Your task to perform on an android device: open app "Viber Messenger" (install if not already installed) and enter user name: "blameless@icloud.com" and password: "Yoknapatawpha" Image 0: 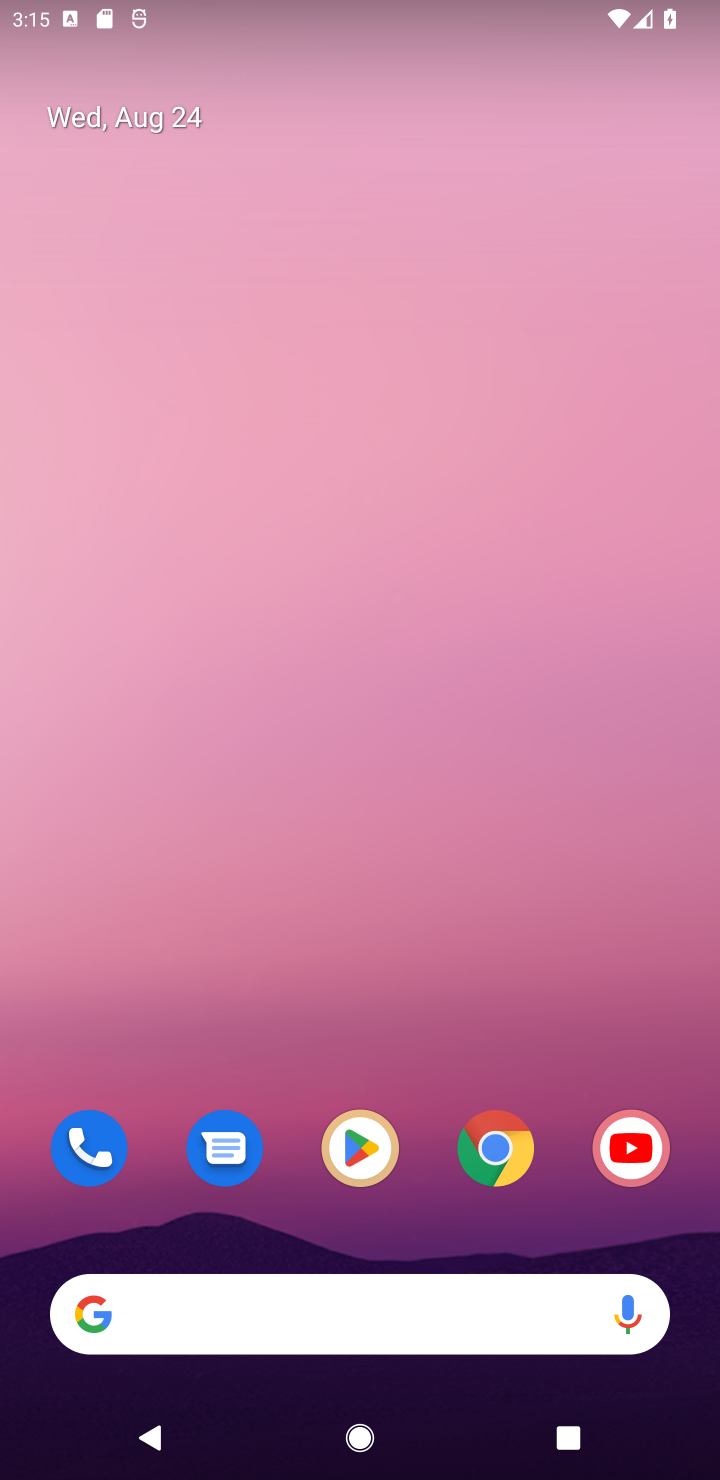
Step 0: drag from (301, 1239) to (383, 465)
Your task to perform on an android device: open app "Viber Messenger" (install if not already installed) and enter user name: "blameless@icloud.com" and password: "Yoknapatawpha" Image 1: 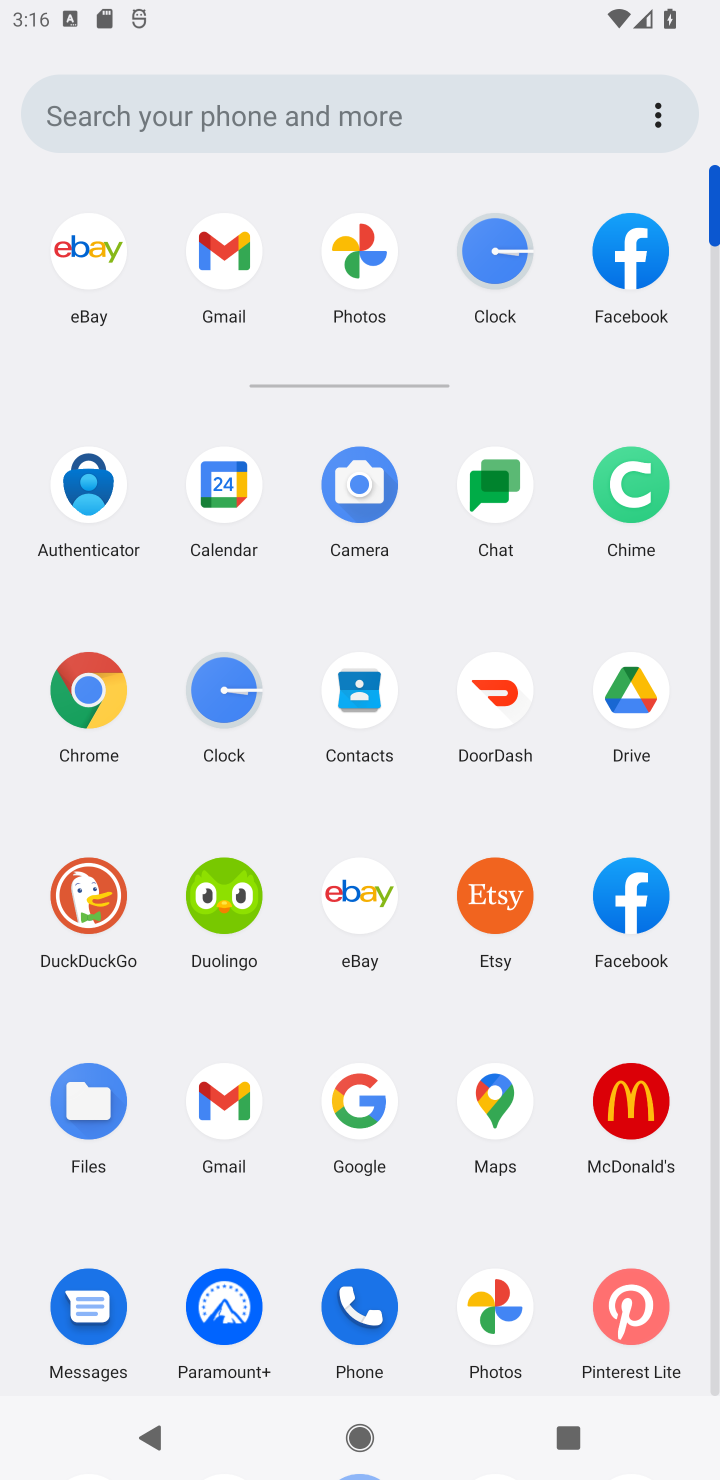
Step 1: drag from (317, 1187) to (429, 360)
Your task to perform on an android device: open app "Viber Messenger" (install if not already installed) and enter user name: "blameless@icloud.com" and password: "Yoknapatawpha" Image 2: 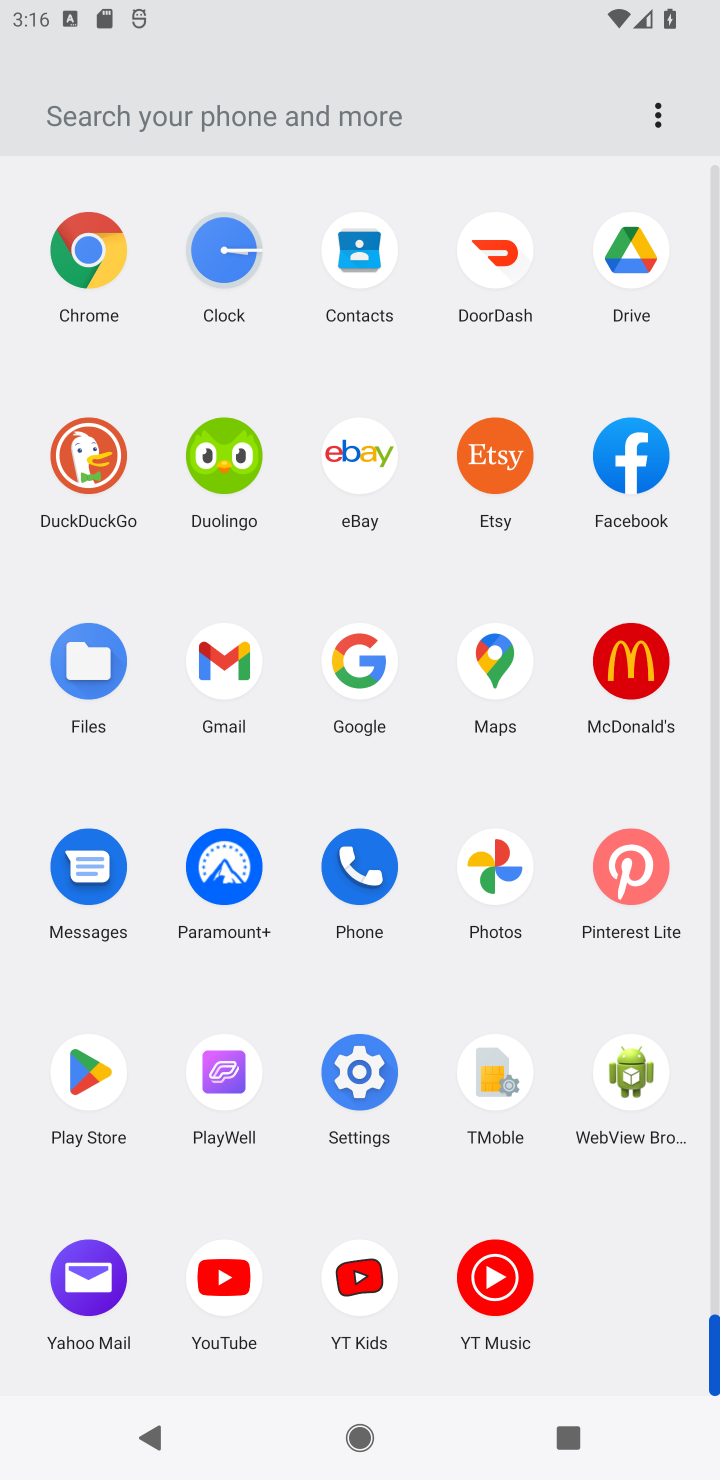
Step 2: click (88, 1065)
Your task to perform on an android device: open app "Viber Messenger" (install if not already installed) and enter user name: "blameless@icloud.com" and password: "Yoknapatawpha" Image 3: 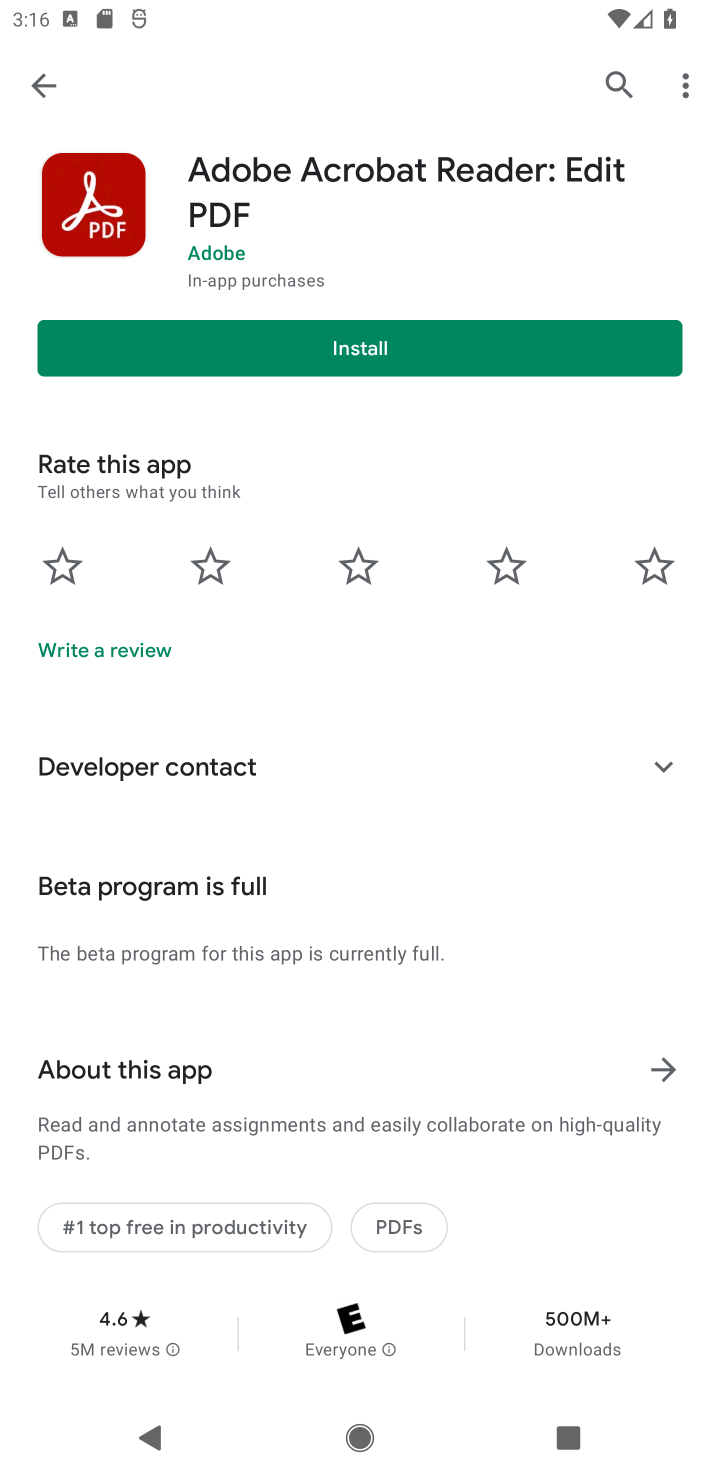
Step 3: click (43, 77)
Your task to perform on an android device: open app "Viber Messenger" (install if not already installed) and enter user name: "blameless@icloud.com" and password: "Yoknapatawpha" Image 4: 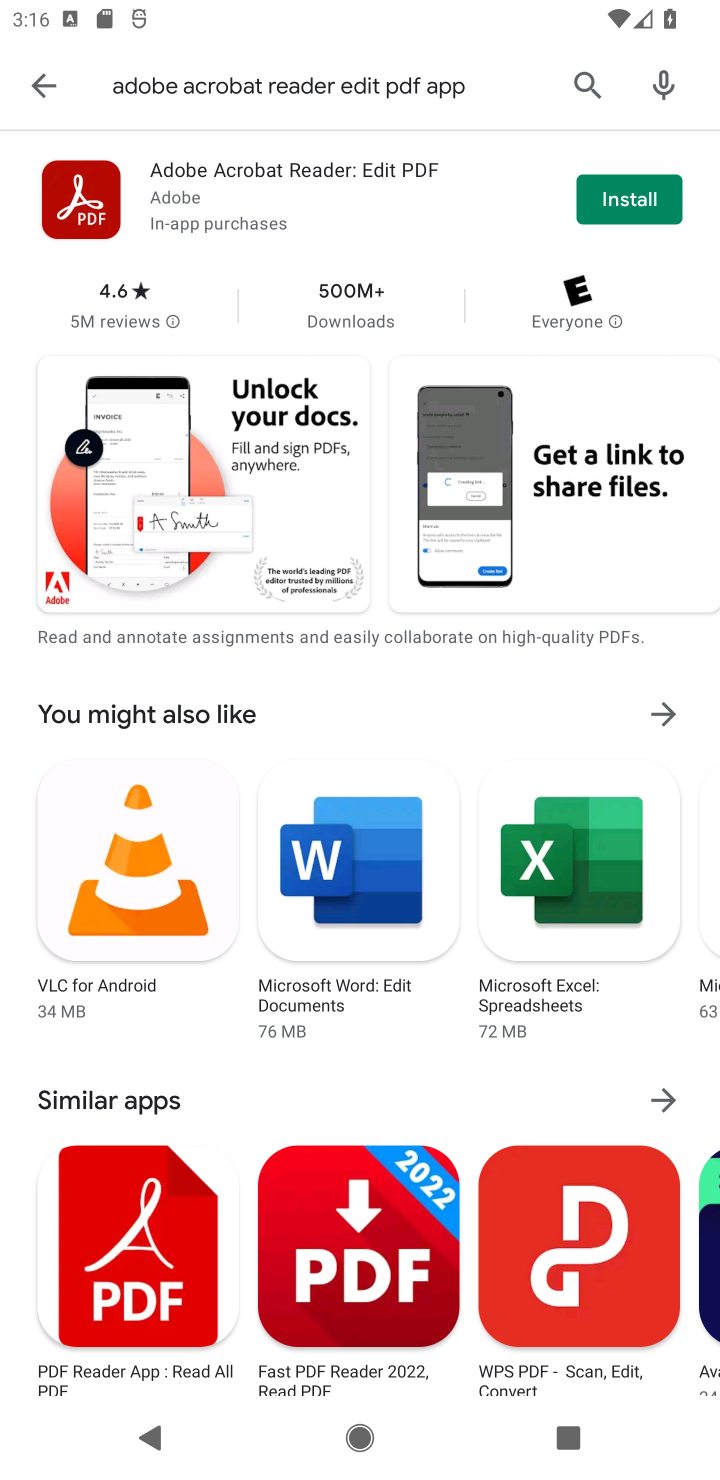
Step 4: click (43, 77)
Your task to perform on an android device: open app "Viber Messenger" (install if not already installed) and enter user name: "blameless@icloud.com" and password: "Yoknapatawpha" Image 5: 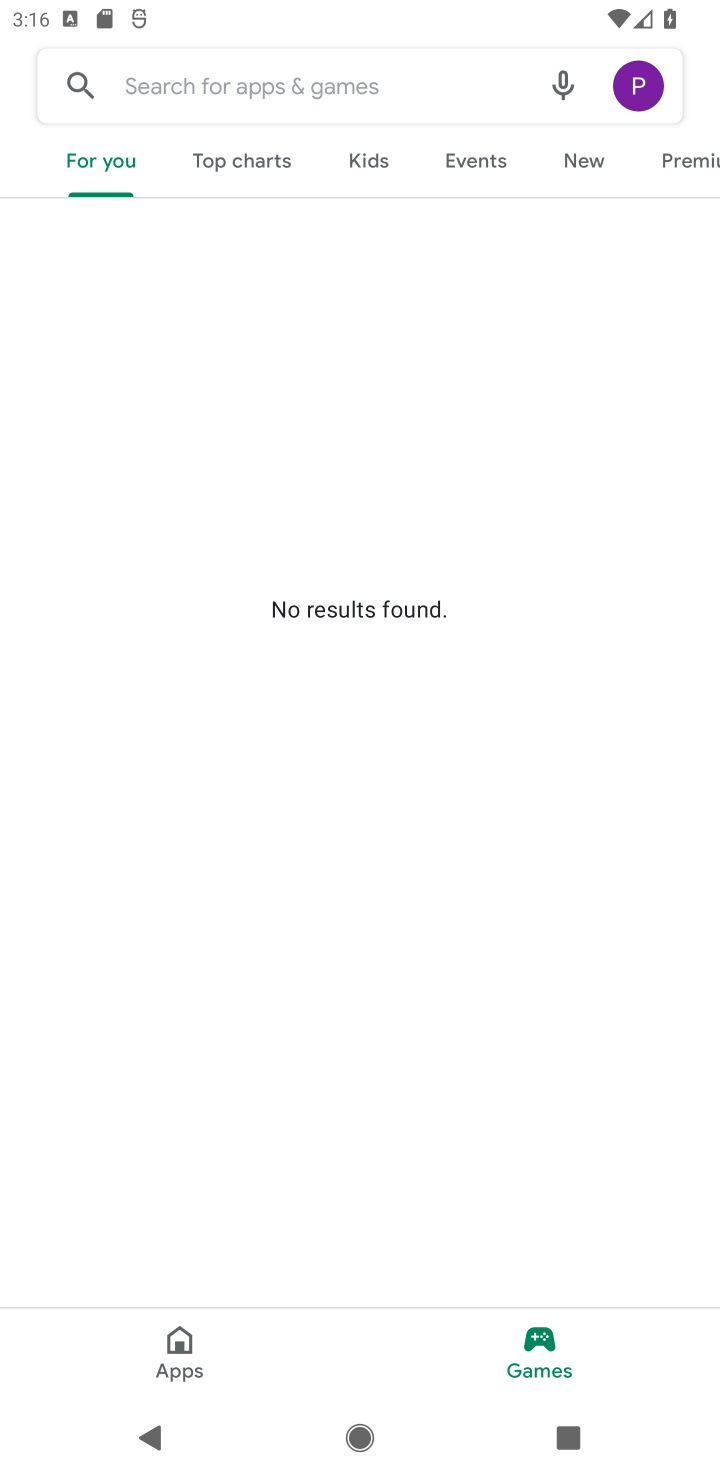
Step 5: click (205, 69)
Your task to perform on an android device: open app "Viber Messenger" (install if not already installed) and enter user name: "blameless@icloud.com" and password: "Yoknapatawpha" Image 6: 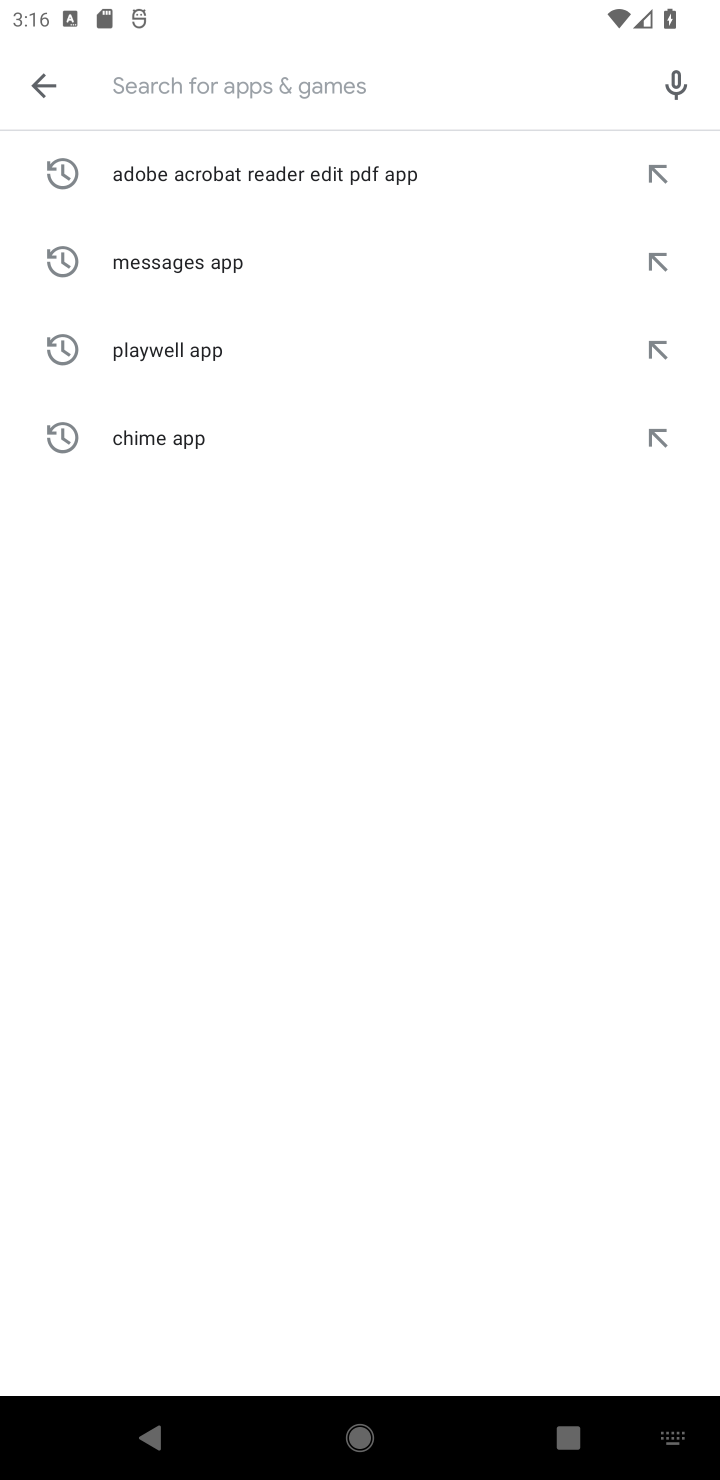
Step 6: type "Viber Messenge "
Your task to perform on an android device: open app "Viber Messenger" (install if not already installed) and enter user name: "blameless@icloud.com" and password: "Yoknapatawpha" Image 7: 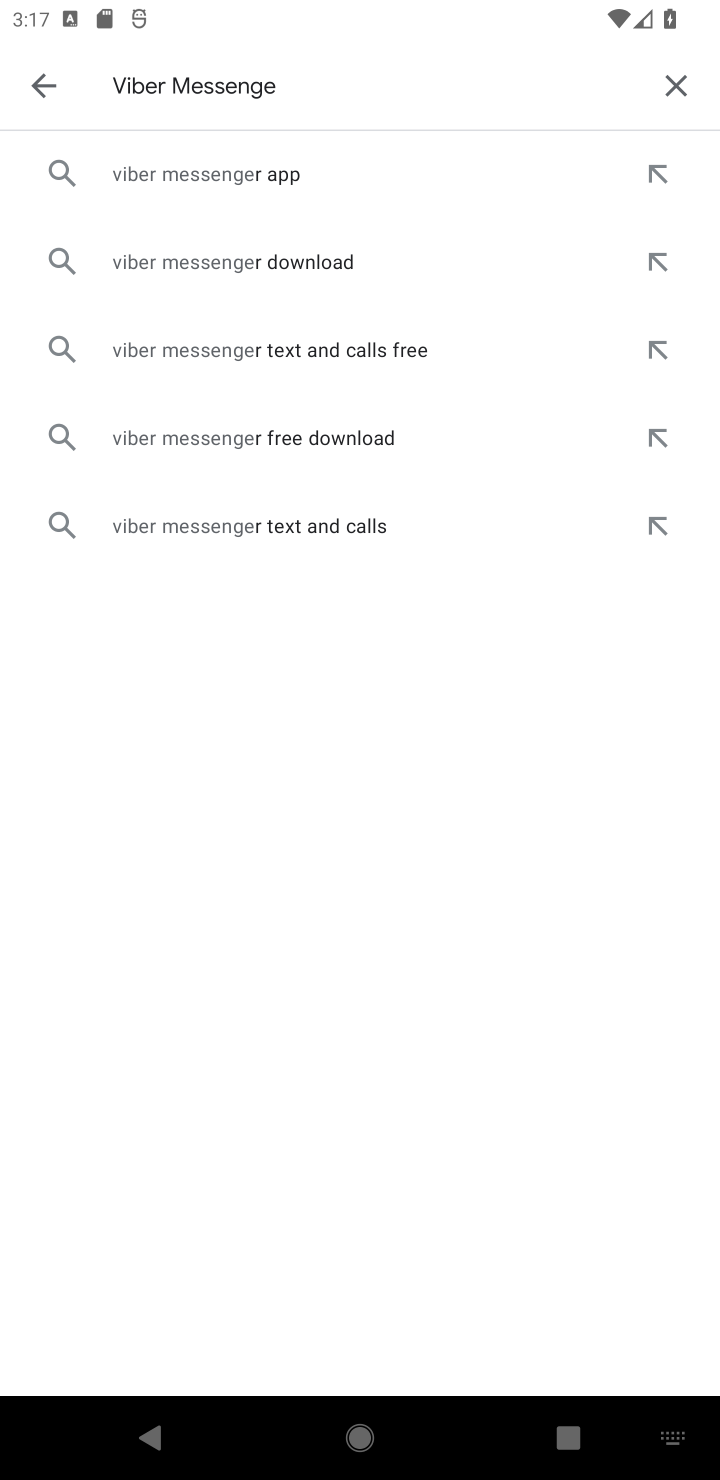
Step 7: click (259, 172)
Your task to perform on an android device: open app "Viber Messenger" (install if not already installed) and enter user name: "blameless@icloud.com" and password: "Yoknapatawpha" Image 8: 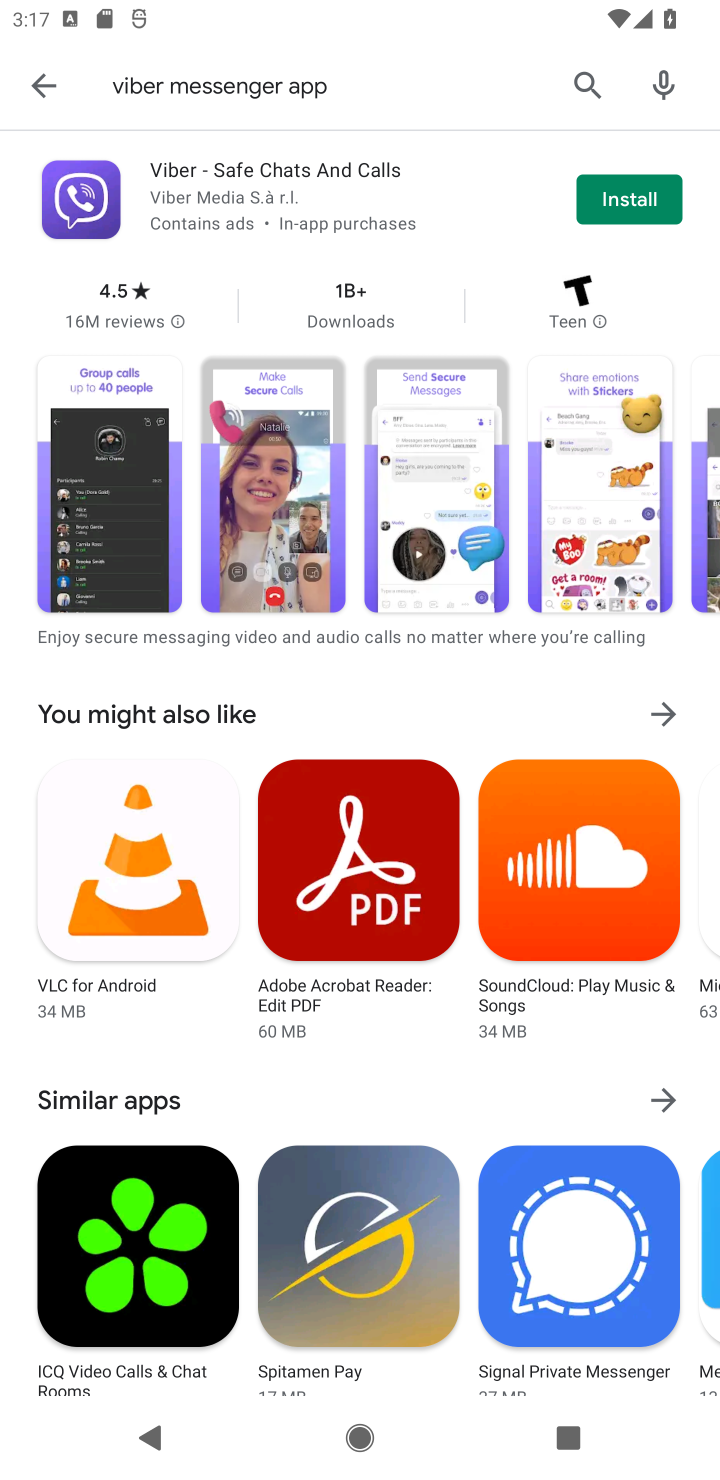
Step 8: click (657, 206)
Your task to perform on an android device: open app "Viber Messenger" (install if not already installed) and enter user name: "blameless@icloud.com" and password: "Yoknapatawpha" Image 9: 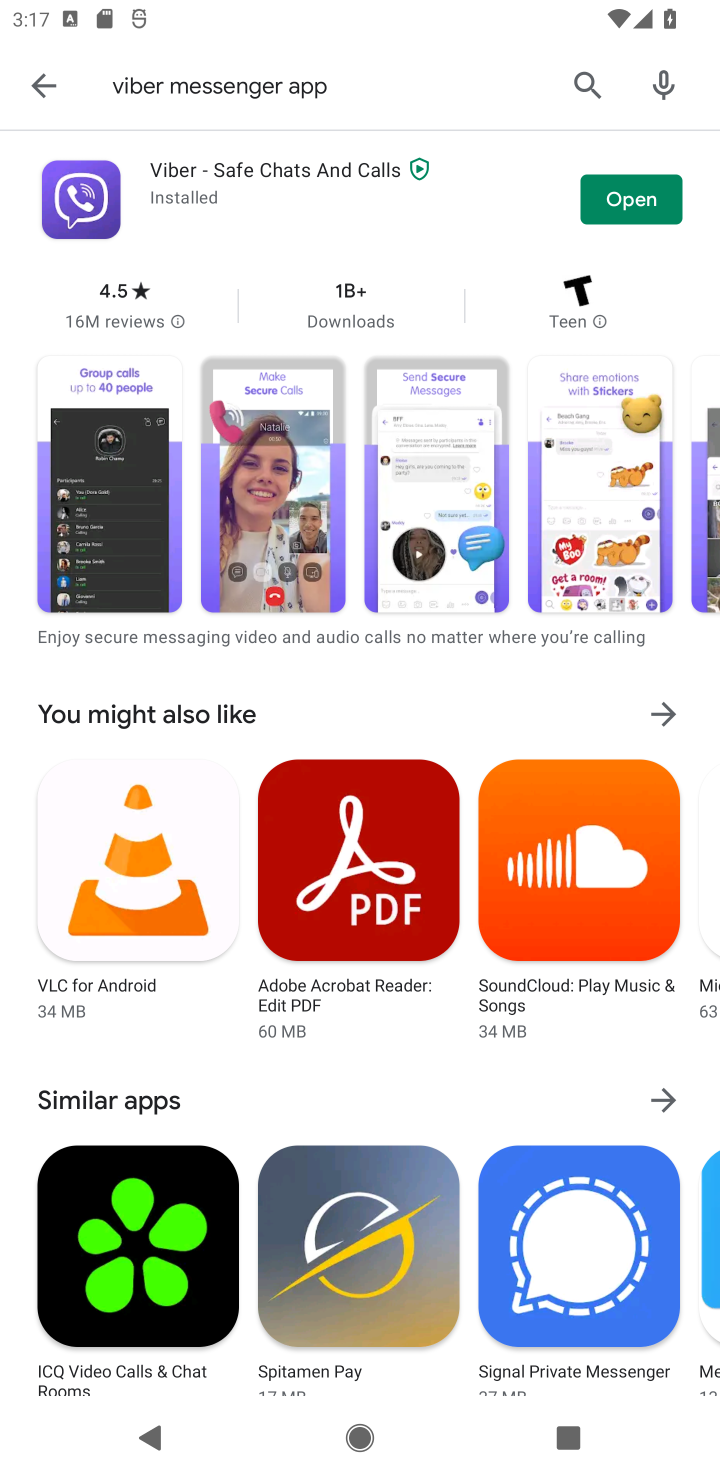
Step 9: click (644, 194)
Your task to perform on an android device: open app "Viber Messenger" (install if not already installed) and enter user name: "blameless@icloud.com" and password: "Yoknapatawpha" Image 10: 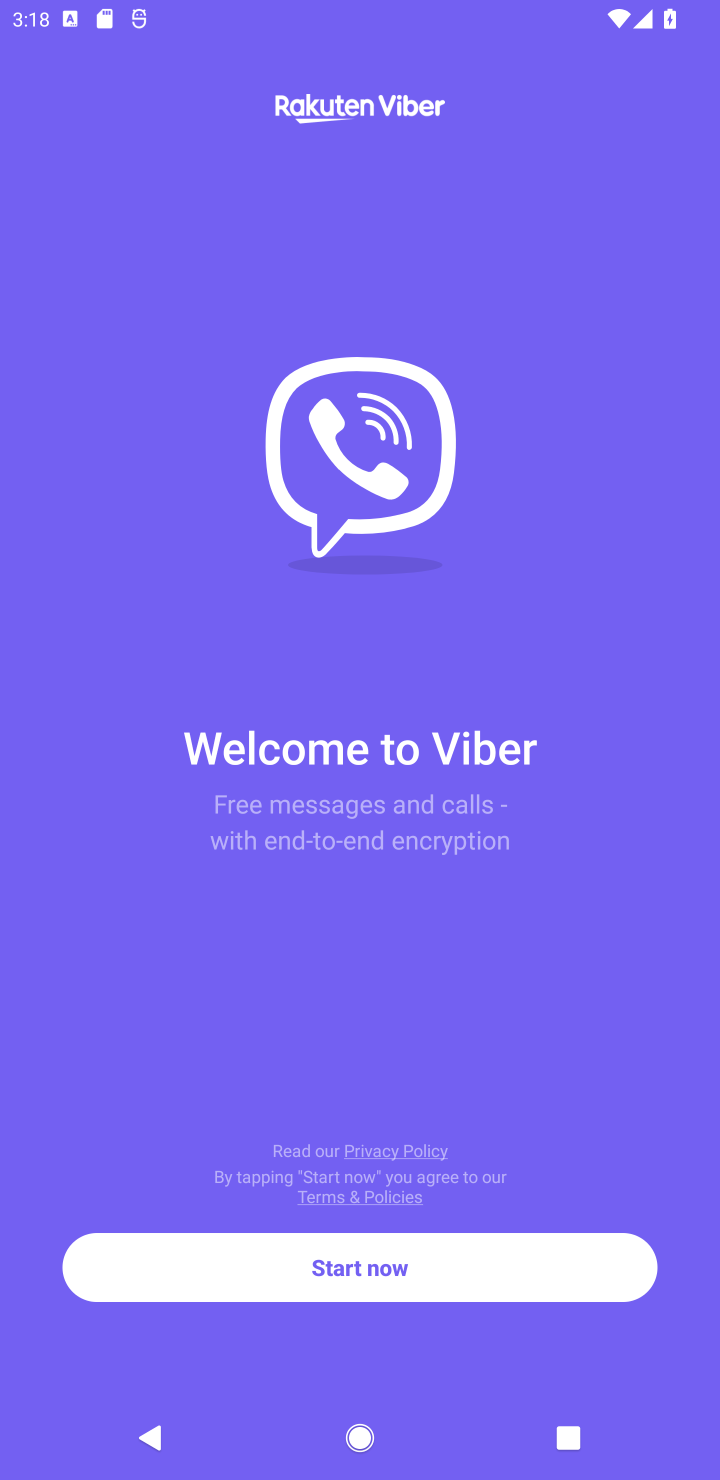
Step 10: task complete